Your task to perform on an android device: turn off data saver in the chrome app Image 0: 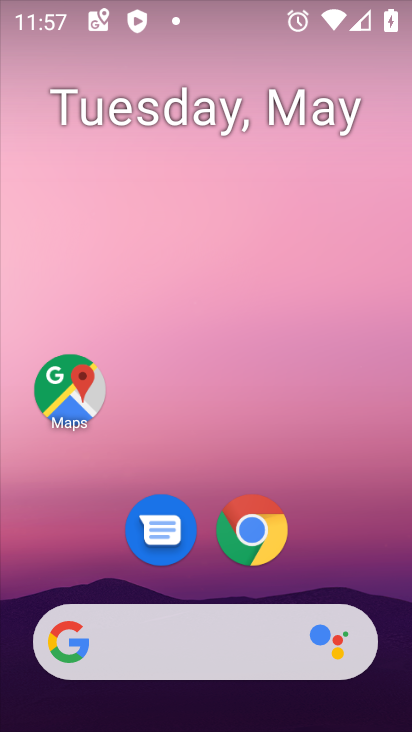
Step 0: click (251, 535)
Your task to perform on an android device: turn off data saver in the chrome app Image 1: 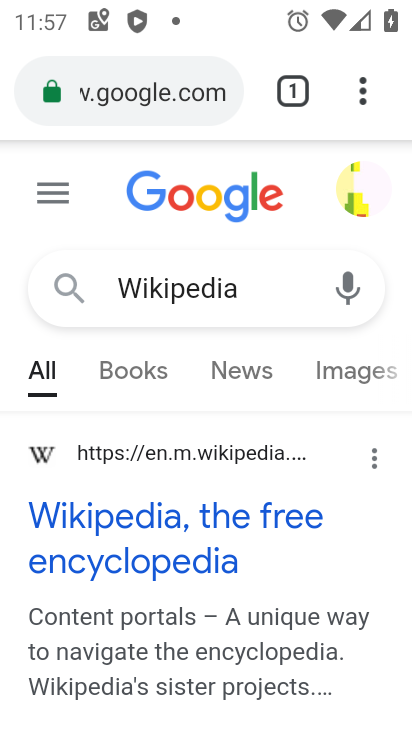
Step 1: click (364, 94)
Your task to perform on an android device: turn off data saver in the chrome app Image 2: 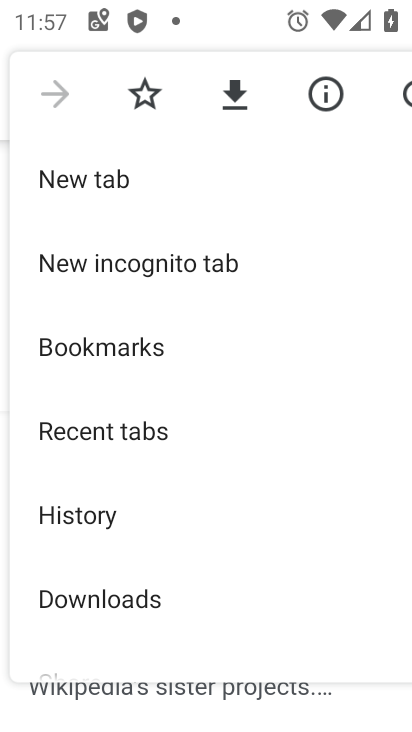
Step 2: drag from (119, 549) to (181, 146)
Your task to perform on an android device: turn off data saver in the chrome app Image 3: 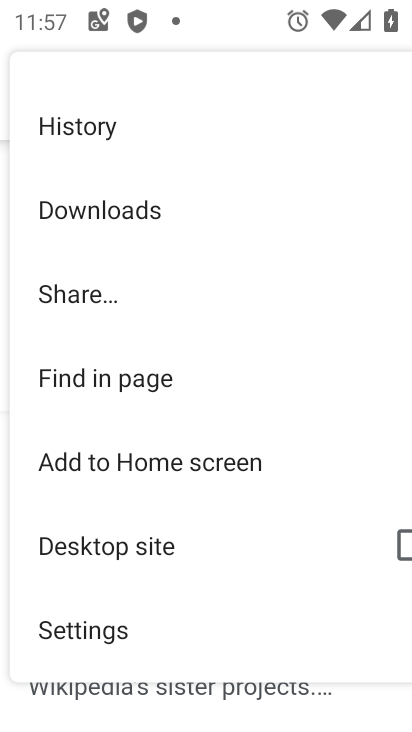
Step 3: click (113, 633)
Your task to perform on an android device: turn off data saver in the chrome app Image 4: 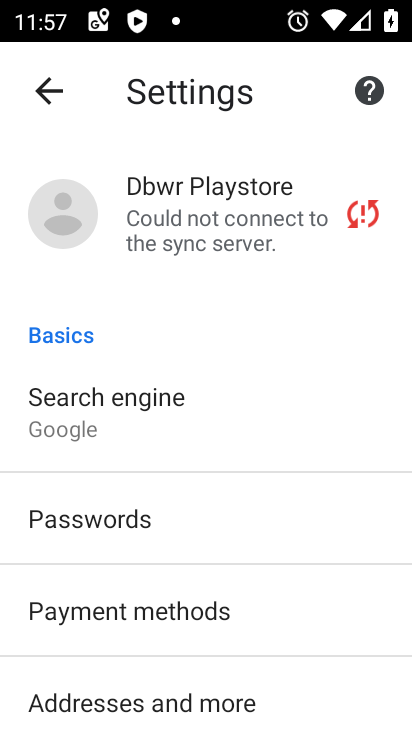
Step 4: drag from (117, 639) to (139, 348)
Your task to perform on an android device: turn off data saver in the chrome app Image 5: 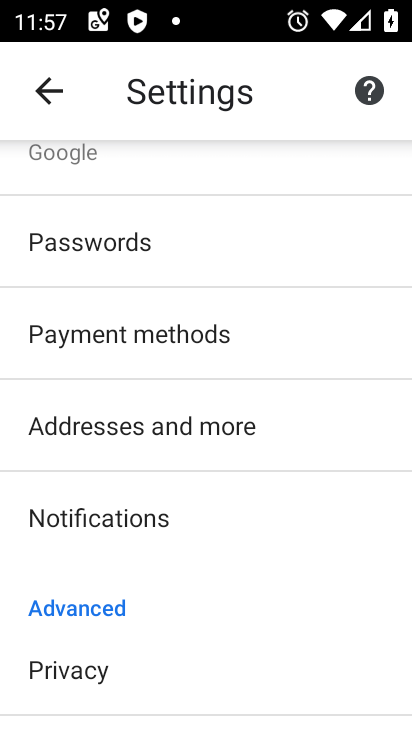
Step 5: drag from (110, 633) to (172, 399)
Your task to perform on an android device: turn off data saver in the chrome app Image 6: 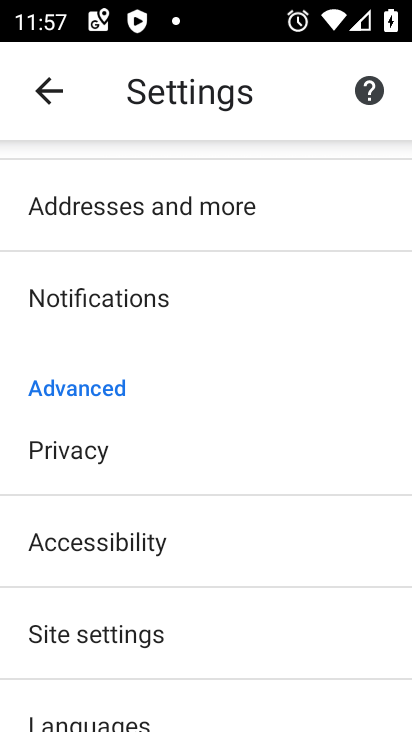
Step 6: drag from (106, 637) to (228, 272)
Your task to perform on an android device: turn off data saver in the chrome app Image 7: 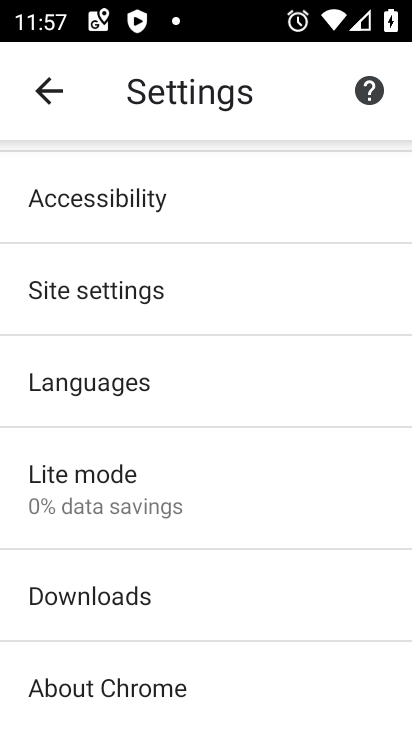
Step 7: click (115, 498)
Your task to perform on an android device: turn off data saver in the chrome app Image 8: 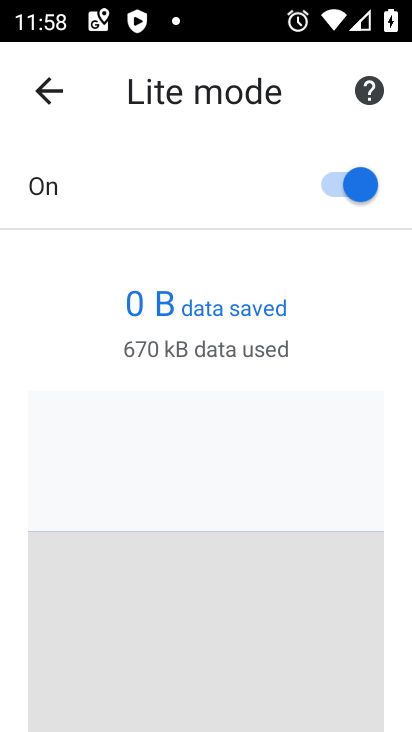
Step 8: click (336, 185)
Your task to perform on an android device: turn off data saver in the chrome app Image 9: 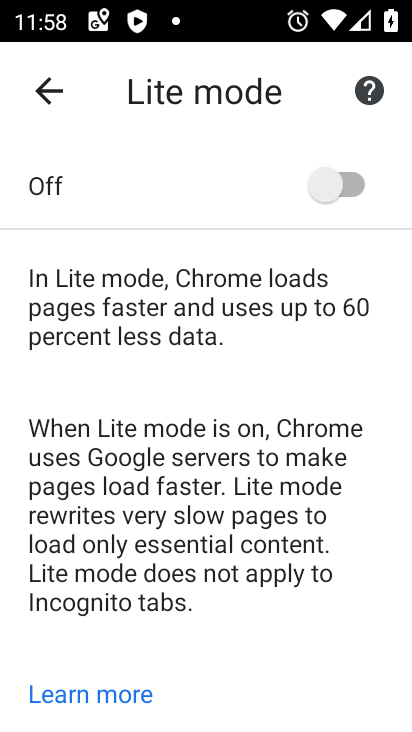
Step 9: task complete